Your task to perform on an android device: Turn off the flashlight Image 0: 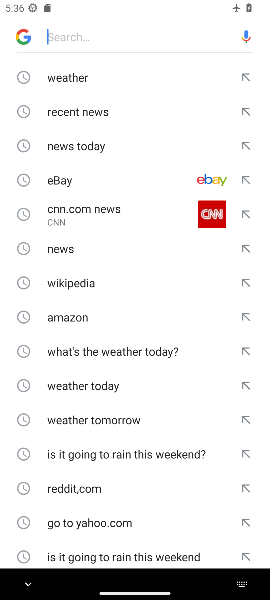
Step 0: drag from (138, 7) to (82, 288)
Your task to perform on an android device: Turn off the flashlight Image 1: 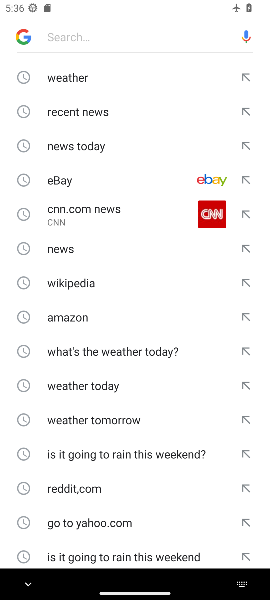
Step 1: task complete